Your task to perform on an android device: Open display settings Image 0: 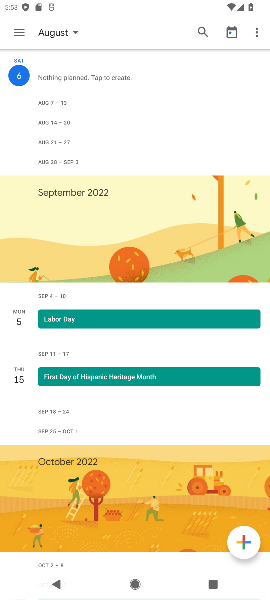
Step 0: click (132, 586)
Your task to perform on an android device: Open display settings Image 1: 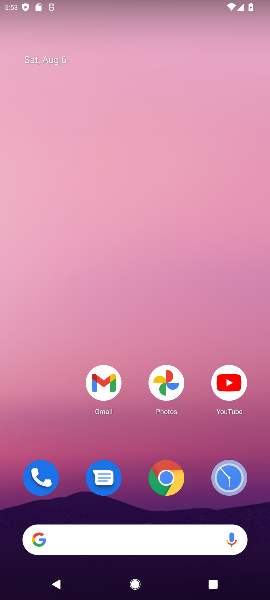
Step 1: drag from (138, 498) to (92, 96)
Your task to perform on an android device: Open display settings Image 2: 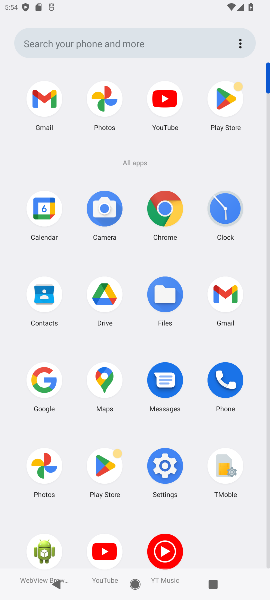
Step 2: click (147, 463)
Your task to perform on an android device: Open display settings Image 3: 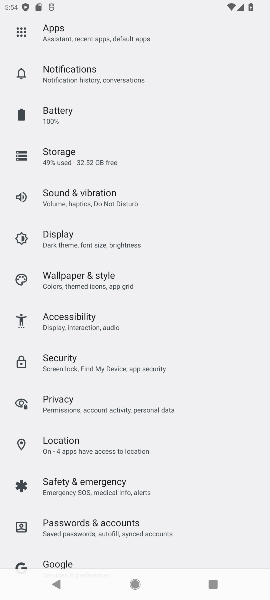
Step 3: click (82, 237)
Your task to perform on an android device: Open display settings Image 4: 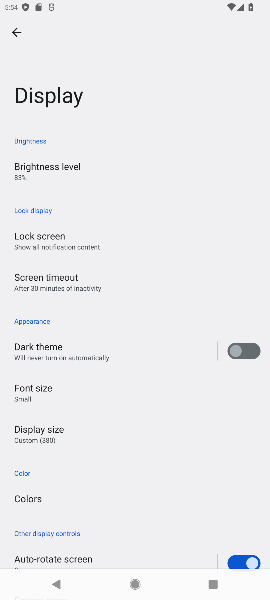
Step 4: task complete